Your task to perform on an android device: Open wifi settings Image 0: 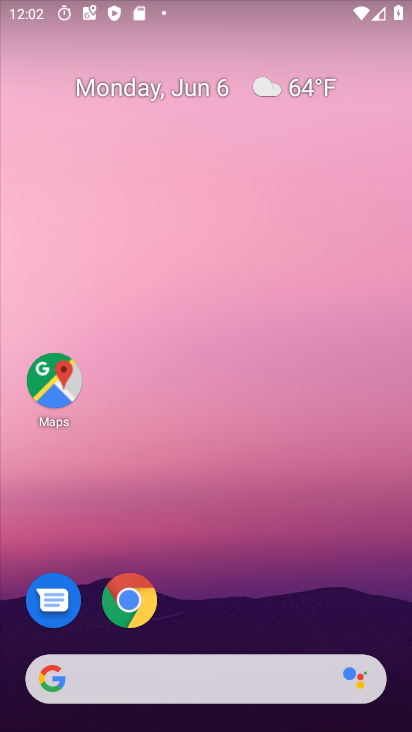
Step 0: drag from (242, 695) to (67, 155)
Your task to perform on an android device: Open wifi settings Image 1: 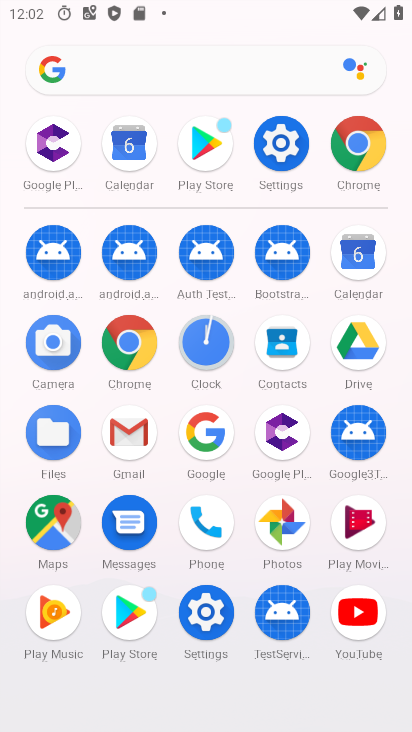
Step 1: click (255, 232)
Your task to perform on an android device: Open wifi settings Image 2: 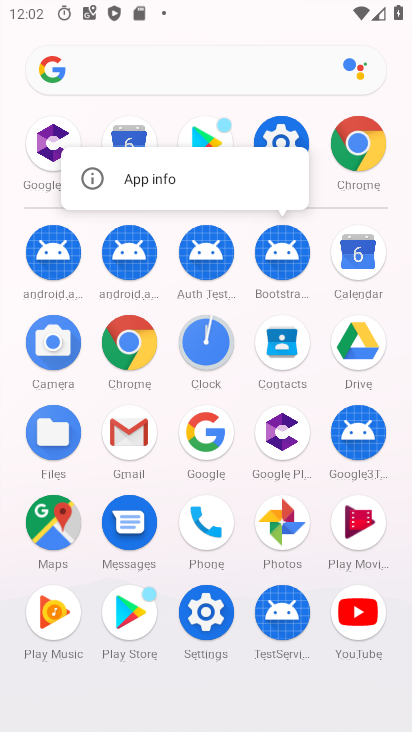
Step 2: click (278, 144)
Your task to perform on an android device: Open wifi settings Image 3: 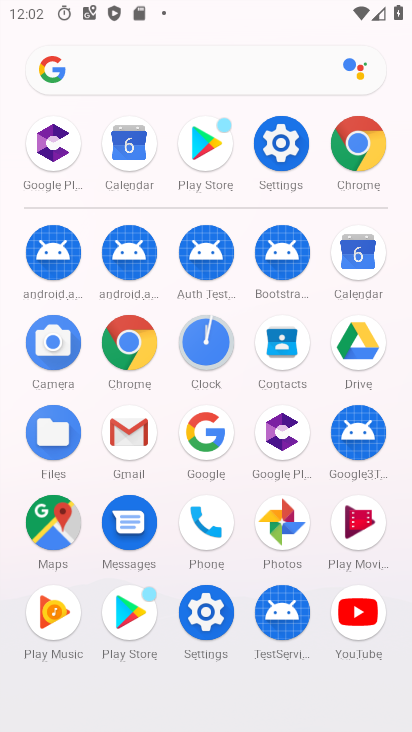
Step 3: click (278, 144)
Your task to perform on an android device: Open wifi settings Image 4: 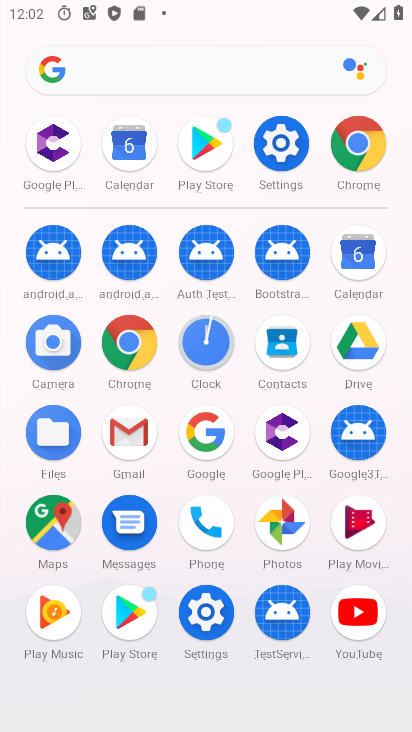
Step 4: click (278, 144)
Your task to perform on an android device: Open wifi settings Image 5: 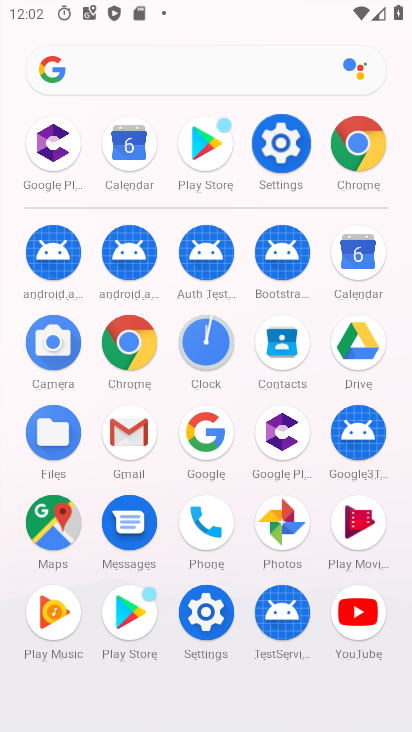
Step 5: click (278, 143)
Your task to perform on an android device: Open wifi settings Image 6: 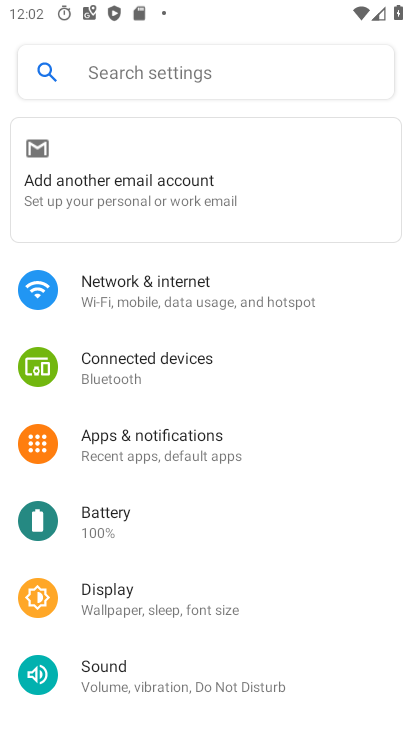
Step 6: click (202, 241)
Your task to perform on an android device: Open wifi settings Image 7: 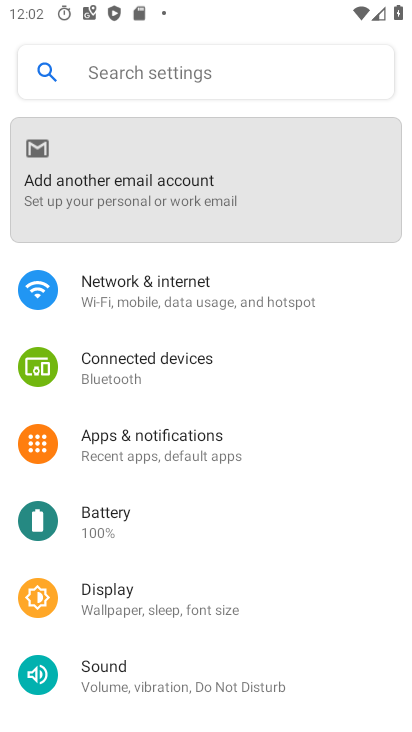
Step 7: click (166, 304)
Your task to perform on an android device: Open wifi settings Image 8: 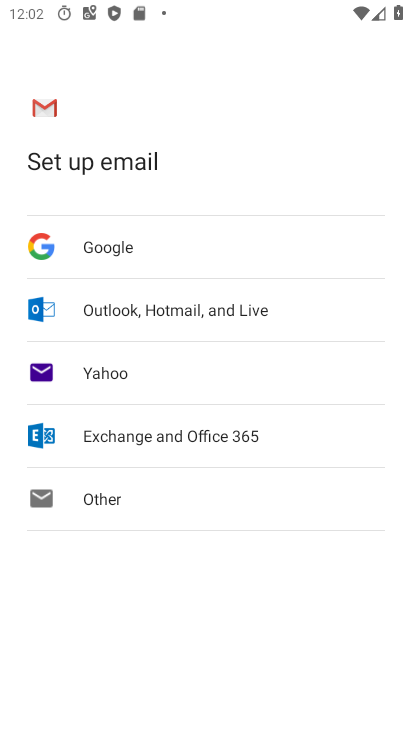
Step 8: task complete